Your task to perform on an android device: Open Amazon Image 0: 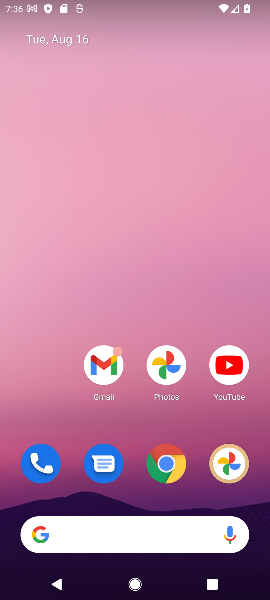
Step 0: drag from (137, 483) to (184, 74)
Your task to perform on an android device: Open Amazon Image 1: 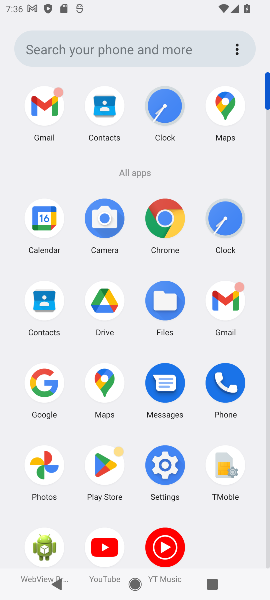
Step 1: click (169, 219)
Your task to perform on an android device: Open Amazon Image 2: 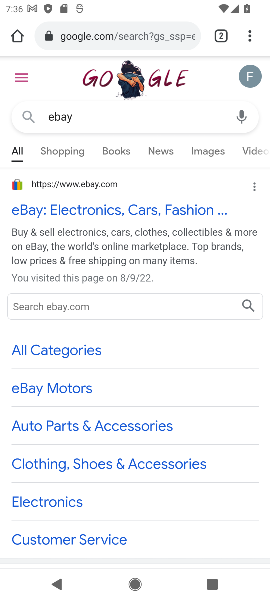
Step 2: click (146, 32)
Your task to perform on an android device: Open Amazon Image 3: 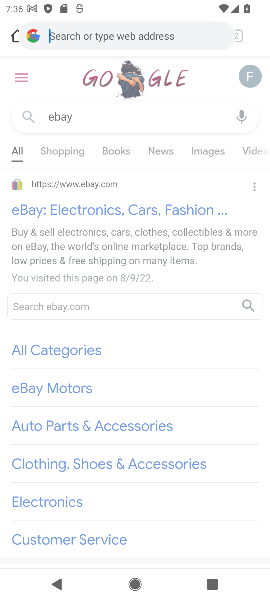
Step 3: type ""
Your task to perform on an android device: Open Amazon Image 4: 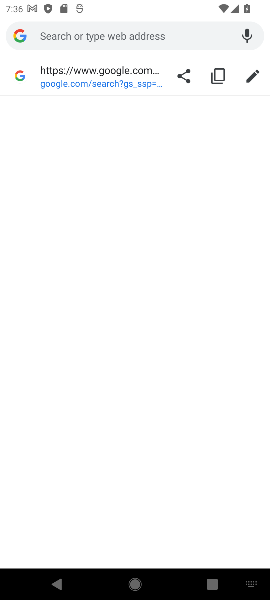
Step 4: type "Amazon"
Your task to perform on an android device: Open Amazon Image 5: 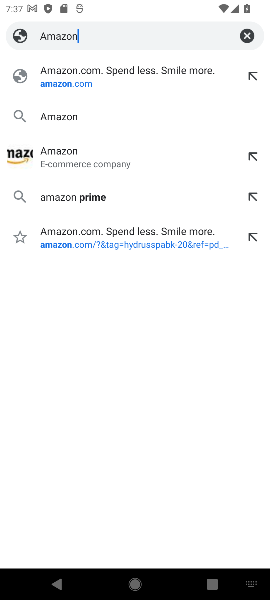
Step 5: click (93, 72)
Your task to perform on an android device: Open Amazon Image 6: 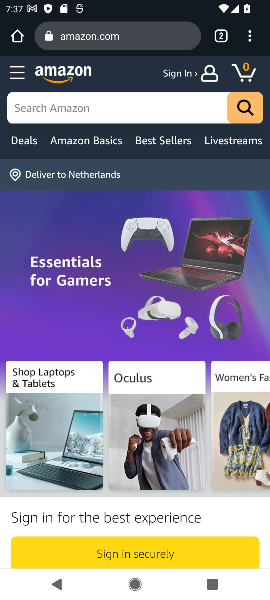
Step 6: task complete